Your task to perform on an android device: Open Google Maps and go to "Timeline" Image 0: 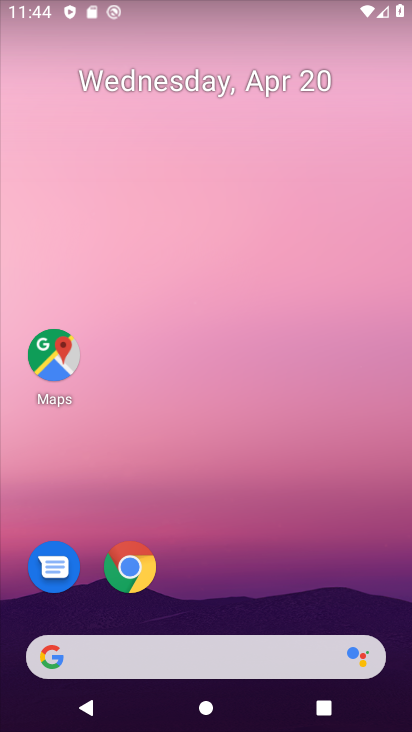
Step 0: click (47, 361)
Your task to perform on an android device: Open Google Maps and go to "Timeline" Image 1: 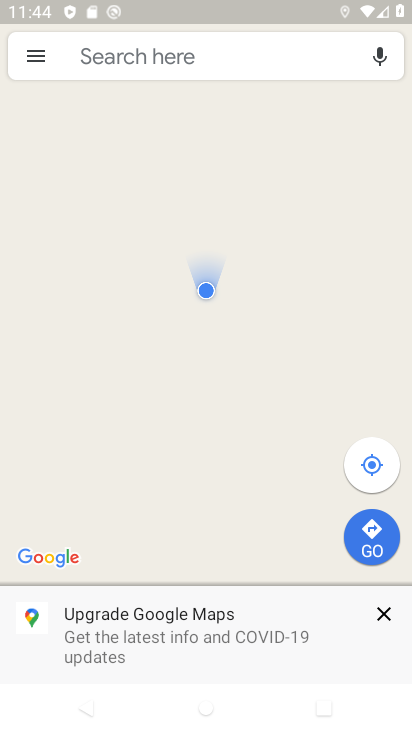
Step 1: click (379, 615)
Your task to perform on an android device: Open Google Maps and go to "Timeline" Image 2: 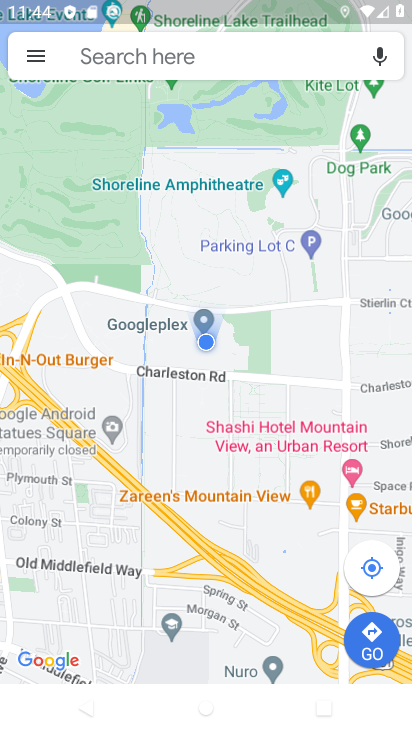
Step 2: click (27, 57)
Your task to perform on an android device: Open Google Maps and go to "Timeline" Image 3: 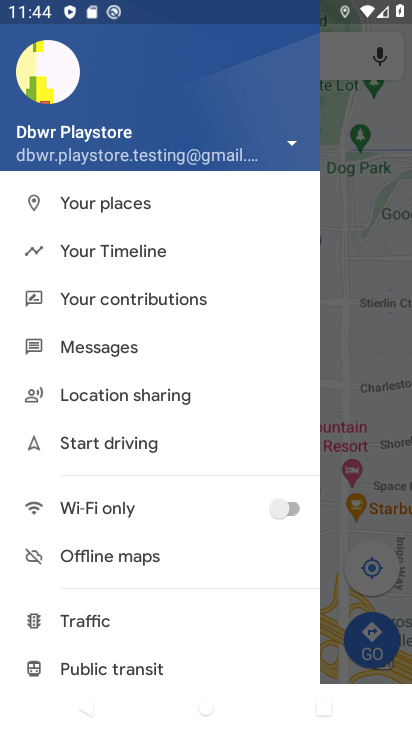
Step 3: click (190, 265)
Your task to perform on an android device: Open Google Maps and go to "Timeline" Image 4: 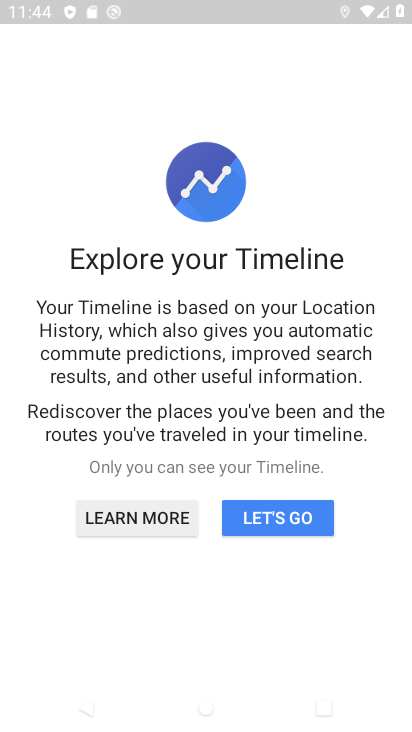
Step 4: click (290, 528)
Your task to perform on an android device: Open Google Maps and go to "Timeline" Image 5: 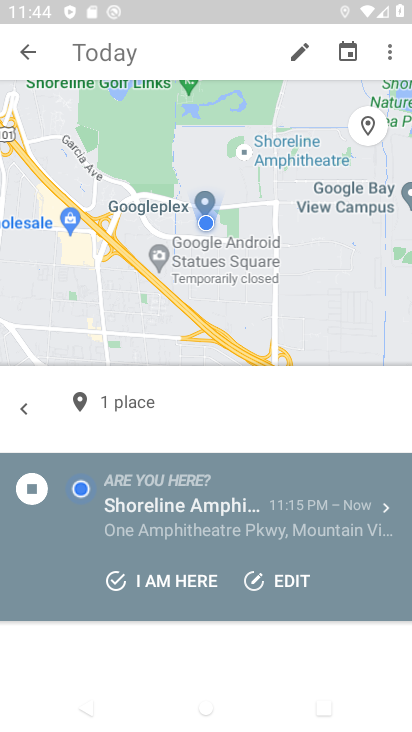
Step 5: task complete